Your task to perform on an android device: visit the assistant section in the google photos Image 0: 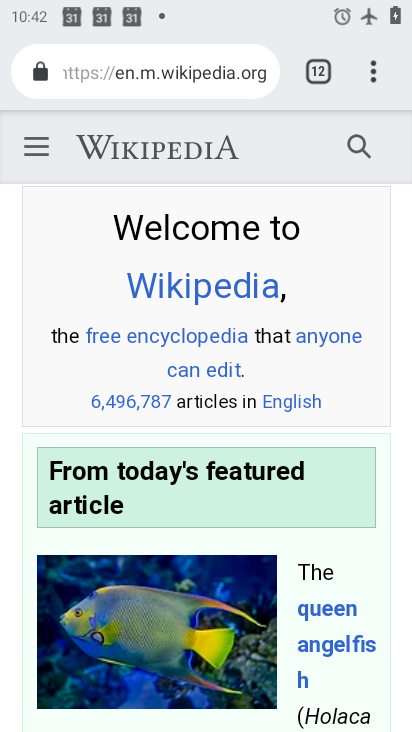
Step 0: press home button
Your task to perform on an android device: visit the assistant section in the google photos Image 1: 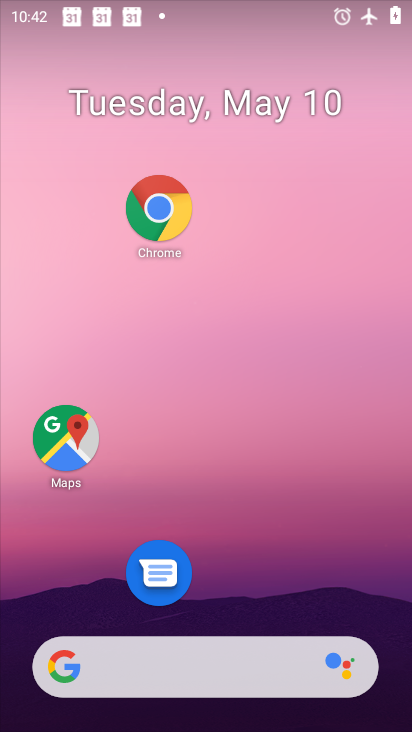
Step 1: drag from (283, 685) to (240, 237)
Your task to perform on an android device: visit the assistant section in the google photos Image 2: 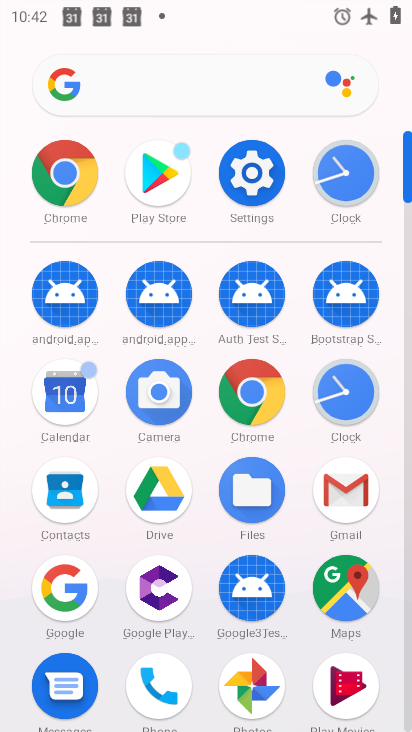
Step 2: click (259, 664)
Your task to perform on an android device: visit the assistant section in the google photos Image 3: 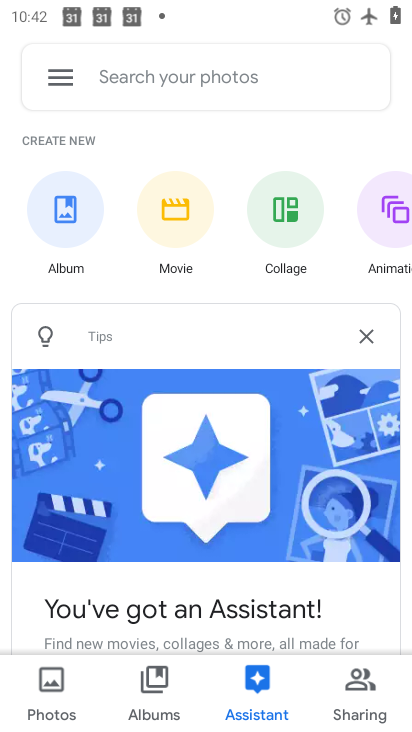
Step 3: click (267, 689)
Your task to perform on an android device: visit the assistant section in the google photos Image 4: 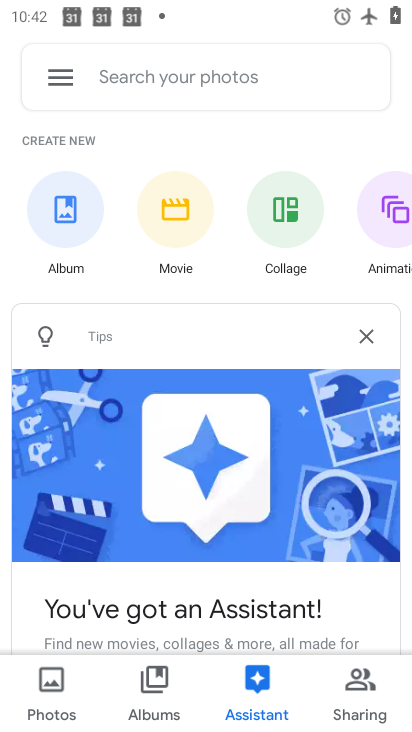
Step 4: task complete